Your task to perform on an android device: change the clock display to analog Image 0: 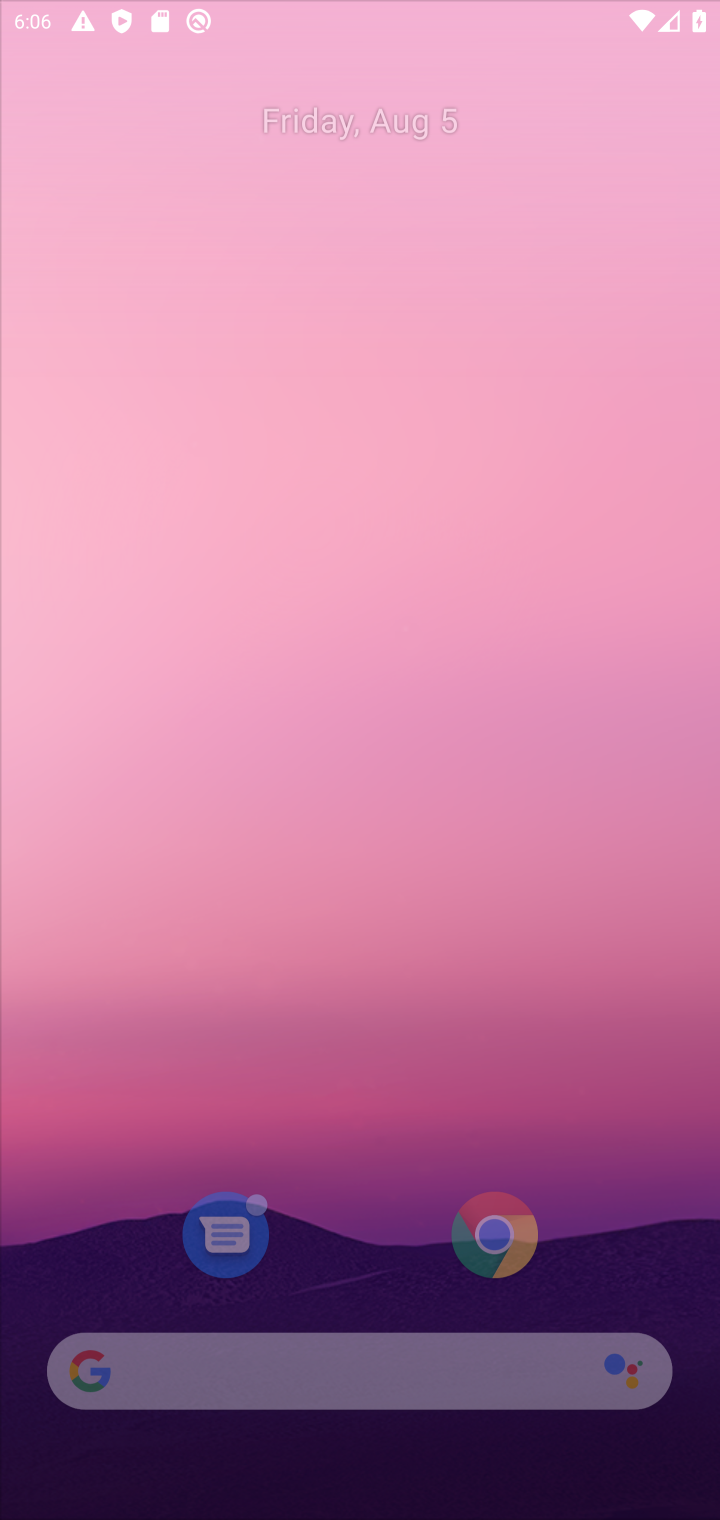
Step 0: press home button
Your task to perform on an android device: change the clock display to analog Image 1: 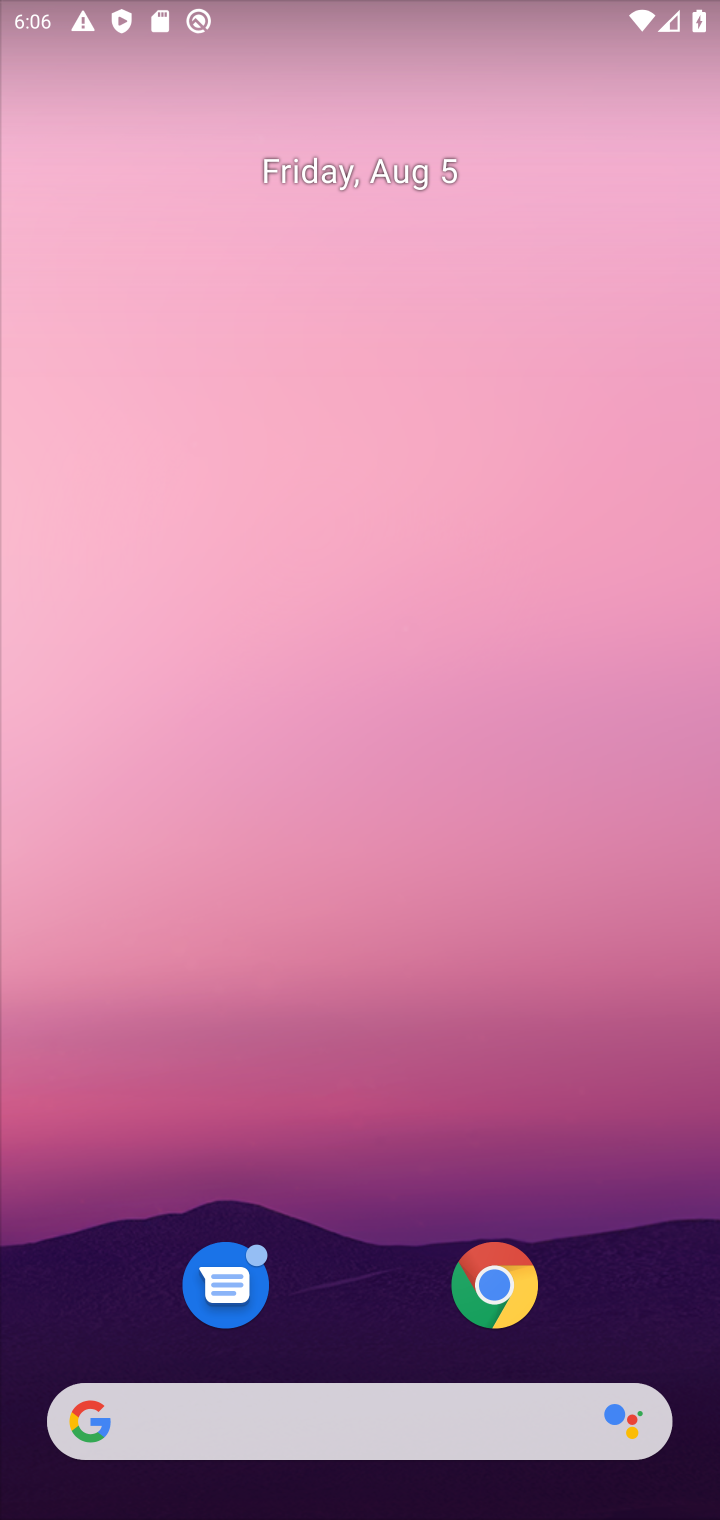
Step 1: press home button
Your task to perform on an android device: change the clock display to analog Image 2: 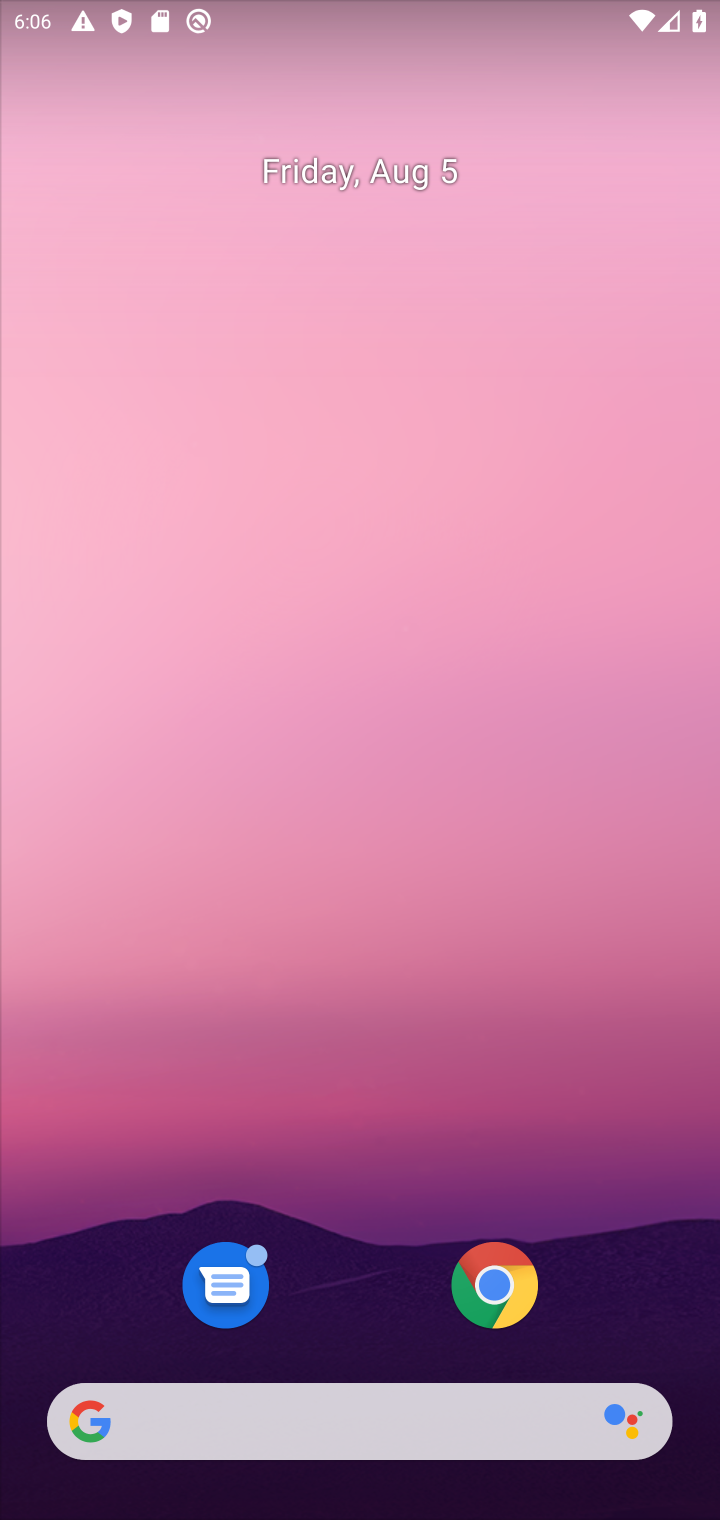
Step 2: drag from (373, 1194) to (506, 41)
Your task to perform on an android device: change the clock display to analog Image 3: 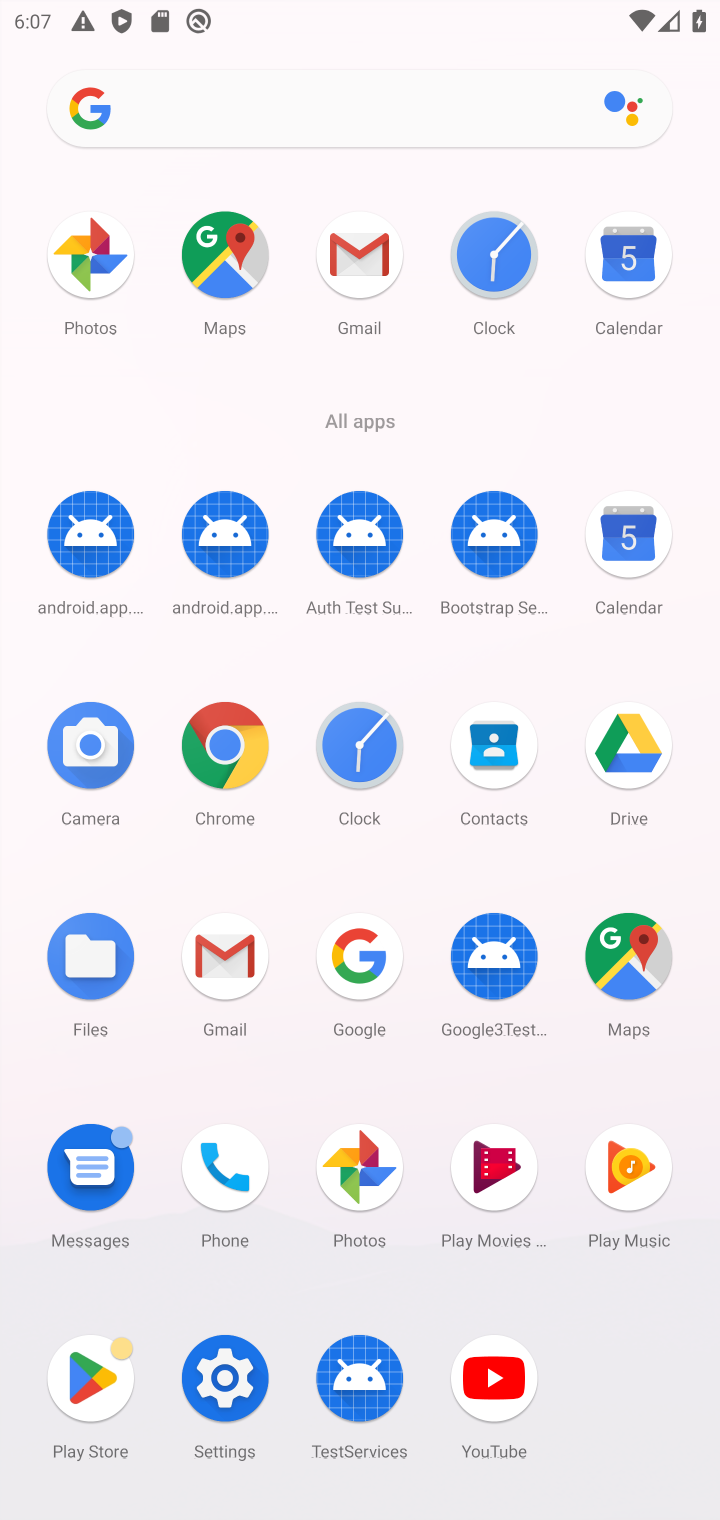
Step 3: click (348, 743)
Your task to perform on an android device: change the clock display to analog Image 4: 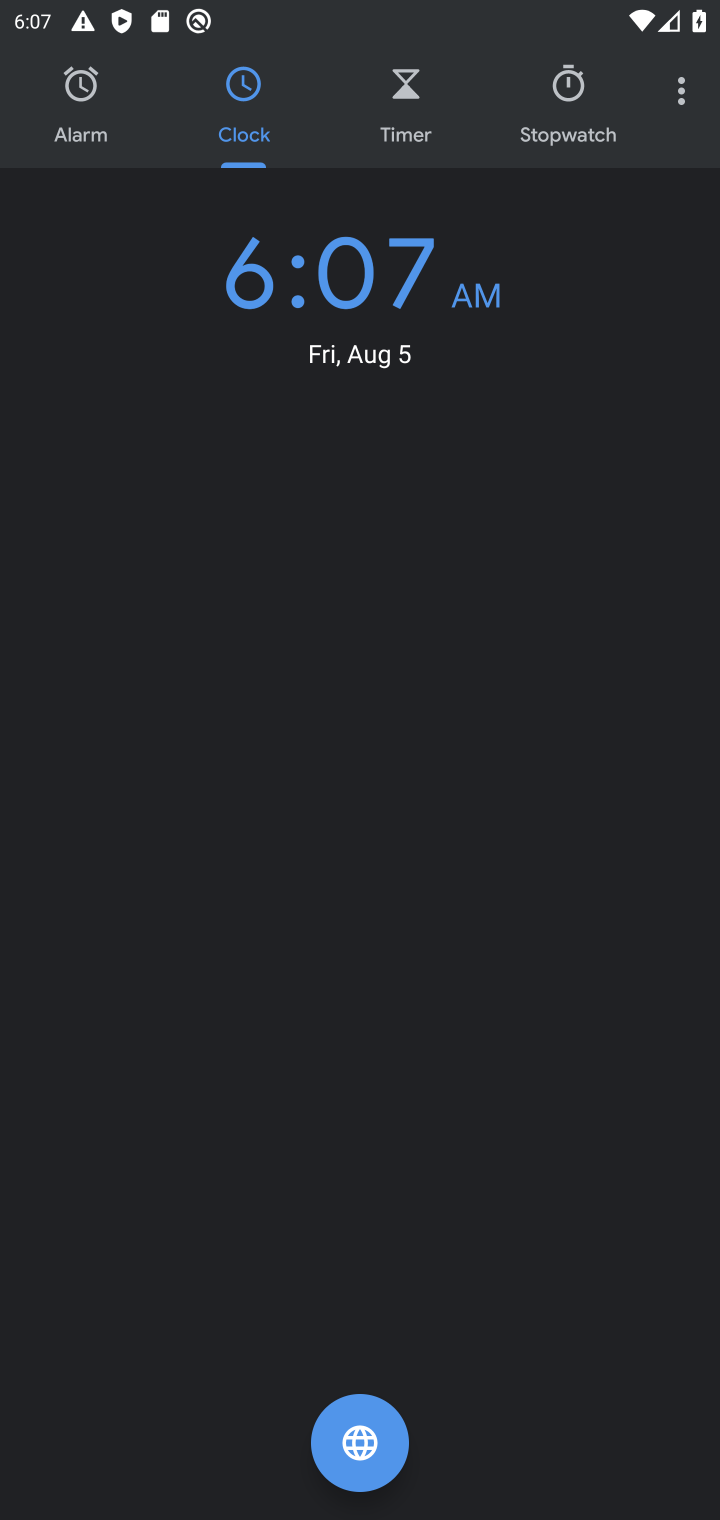
Step 4: click (672, 93)
Your task to perform on an android device: change the clock display to analog Image 5: 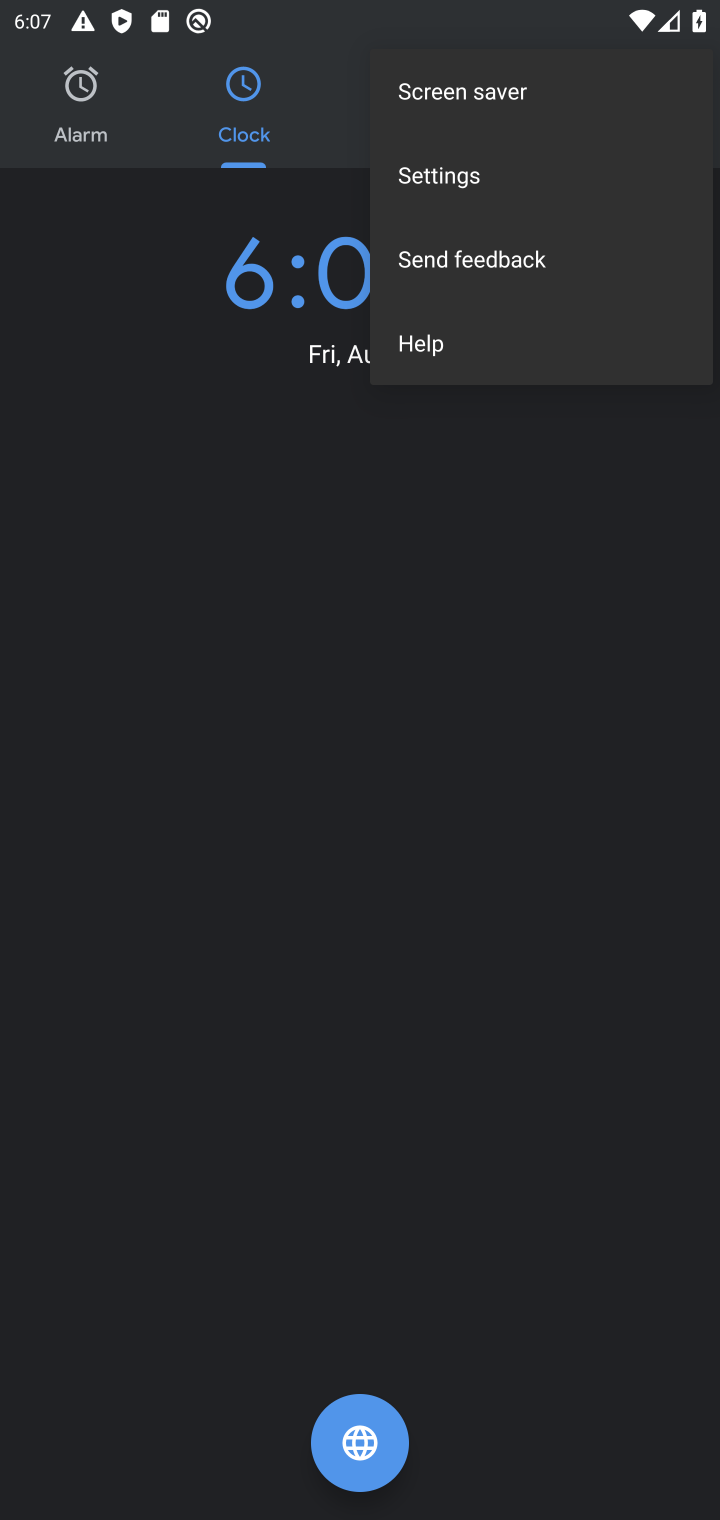
Step 5: click (495, 183)
Your task to perform on an android device: change the clock display to analog Image 6: 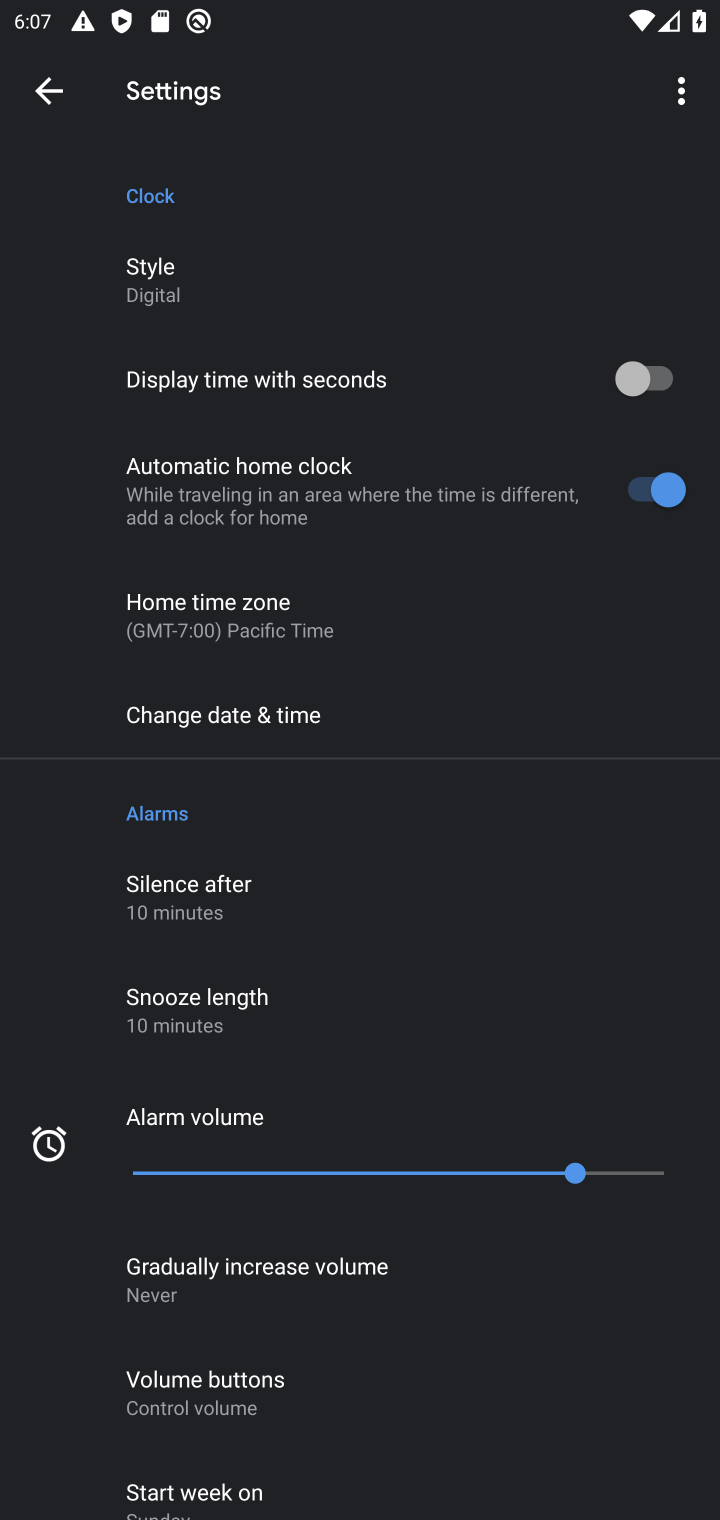
Step 6: click (166, 271)
Your task to perform on an android device: change the clock display to analog Image 7: 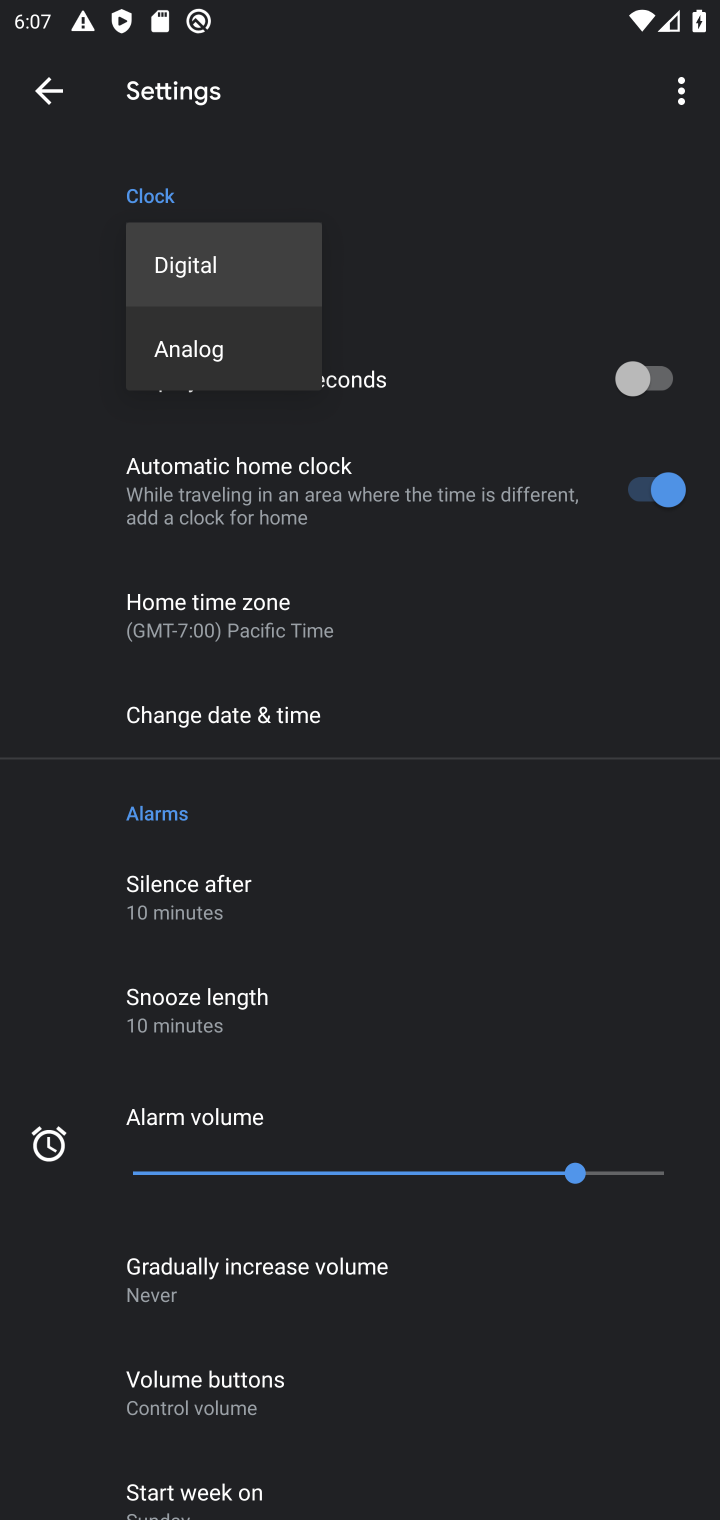
Step 7: click (251, 356)
Your task to perform on an android device: change the clock display to analog Image 8: 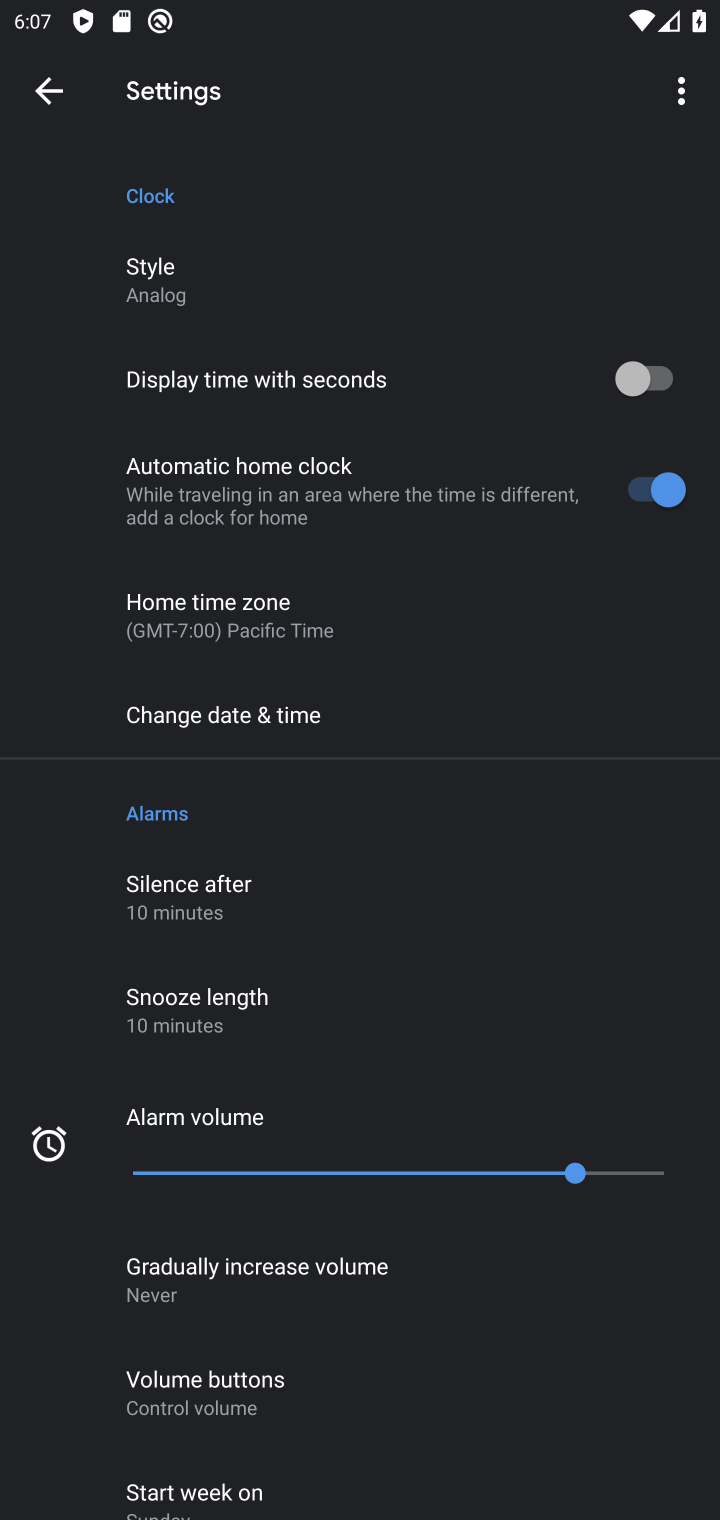
Step 8: task complete